Your task to perform on an android device: Open battery settings Image 0: 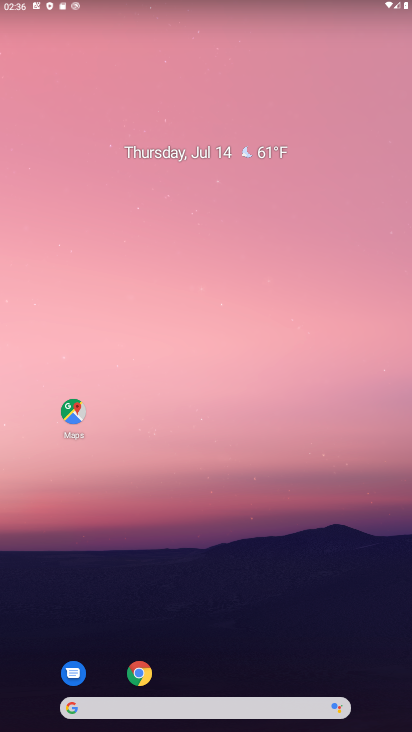
Step 0: drag from (275, 648) to (262, 220)
Your task to perform on an android device: Open battery settings Image 1: 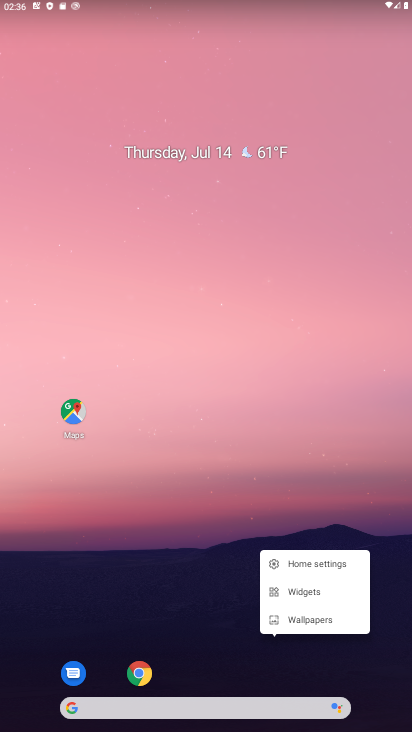
Step 1: click (211, 360)
Your task to perform on an android device: Open battery settings Image 2: 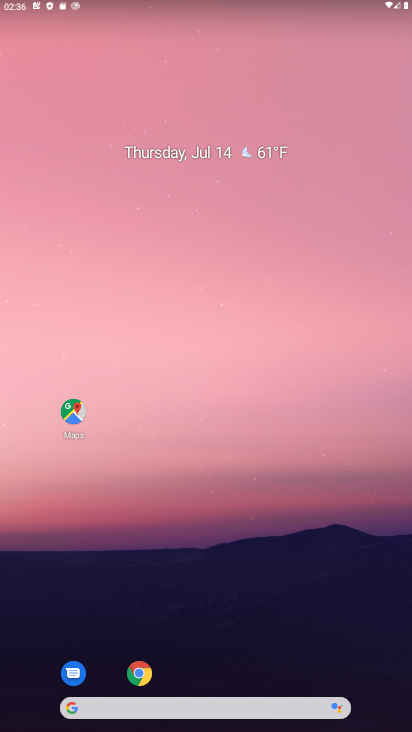
Step 2: drag from (251, 630) to (258, 285)
Your task to perform on an android device: Open battery settings Image 3: 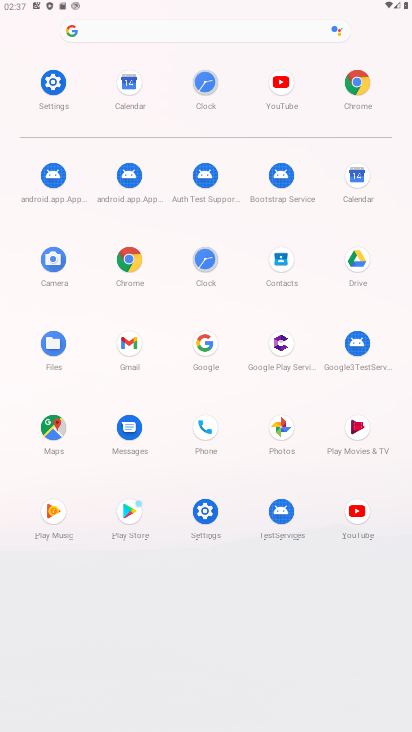
Step 3: click (70, 122)
Your task to perform on an android device: Open battery settings Image 4: 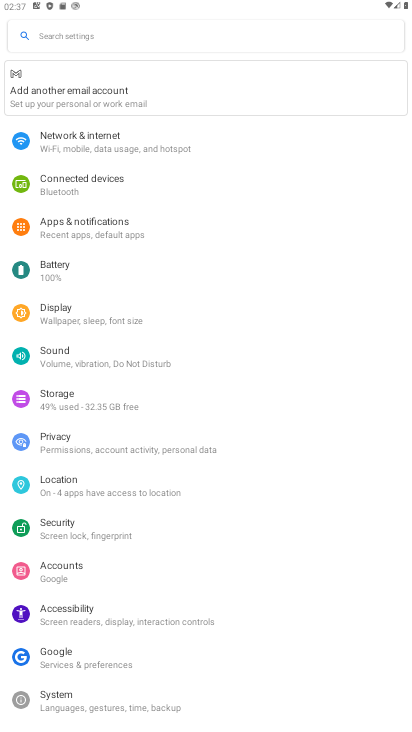
Step 4: click (102, 274)
Your task to perform on an android device: Open battery settings Image 5: 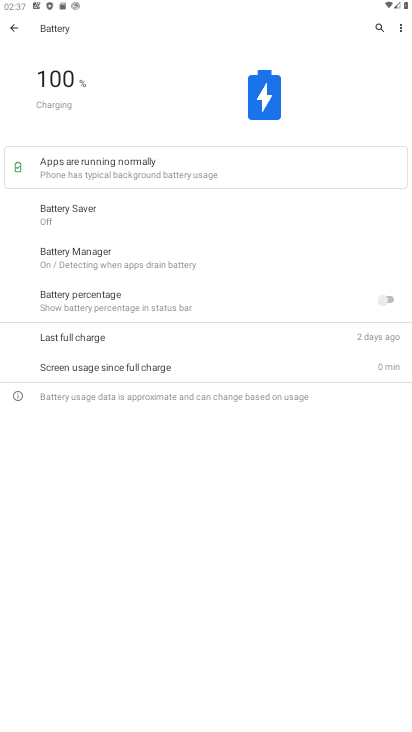
Step 5: task complete